Your task to perform on an android device: Open display settings Image 0: 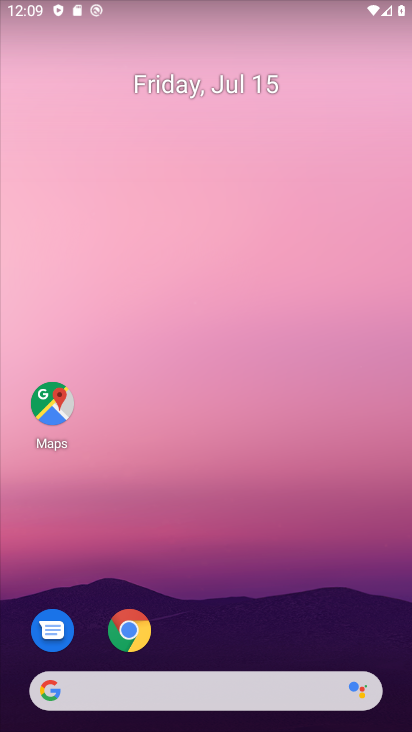
Step 0: drag from (12, 706) to (298, 77)
Your task to perform on an android device: Open display settings Image 1: 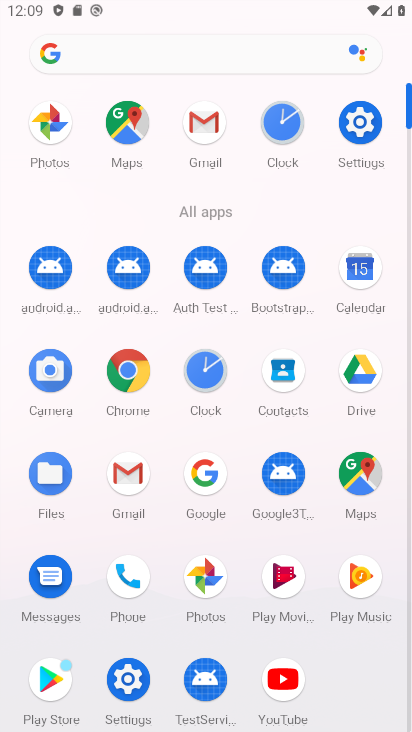
Step 1: click (119, 695)
Your task to perform on an android device: Open display settings Image 2: 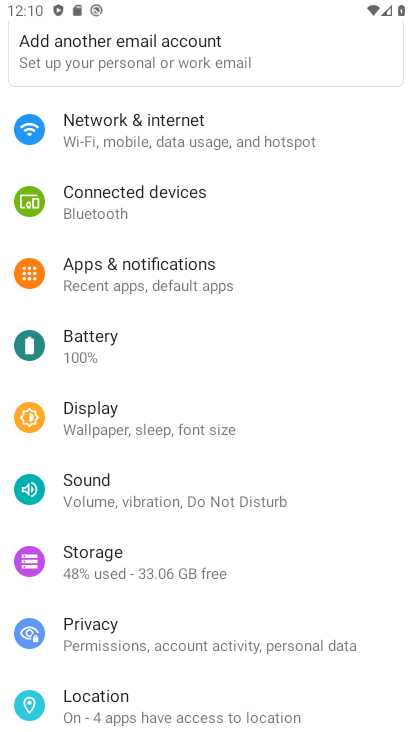
Step 2: click (85, 417)
Your task to perform on an android device: Open display settings Image 3: 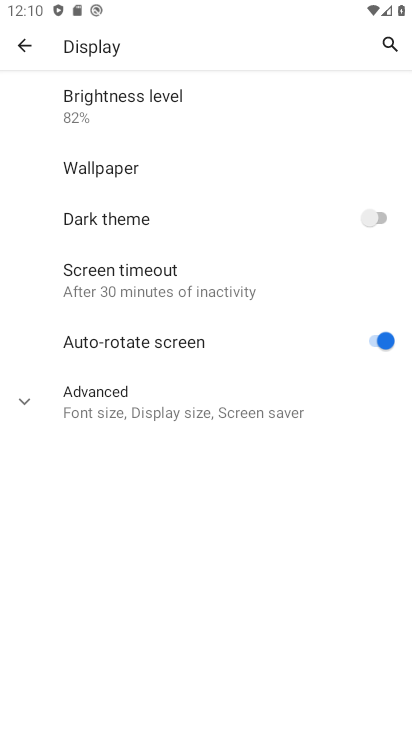
Step 3: task complete